Your task to perform on an android device: Open calendar and show me the third week of next month Image 0: 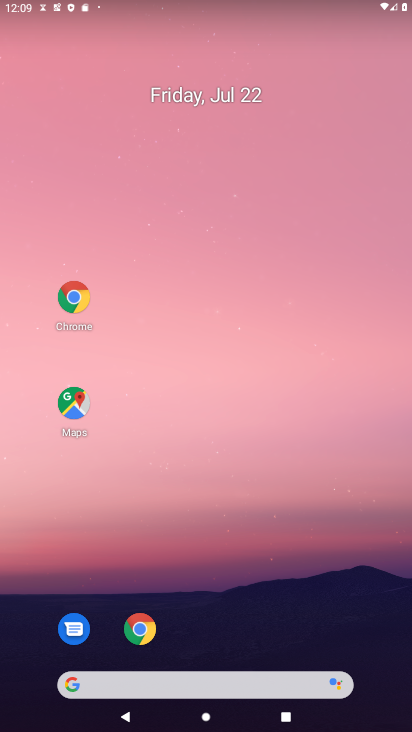
Step 0: drag from (302, 679) to (154, 157)
Your task to perform on an android device: Open calendar and show me the third week of next month Image 1: 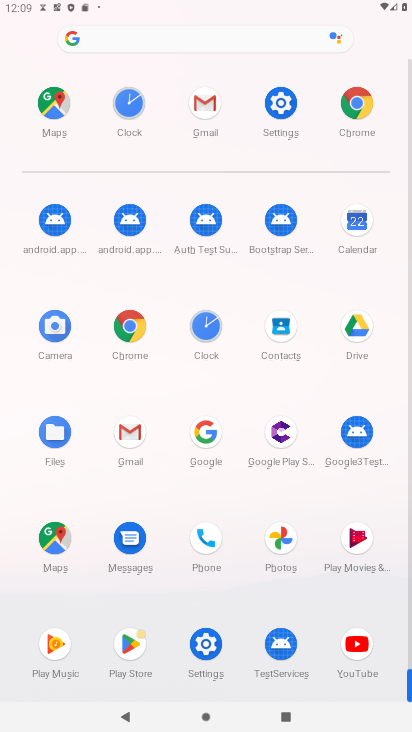
Step 1: click (375, 231)
Your task to perform on an android device: Open calendar and show me the third week of next month Image 2: 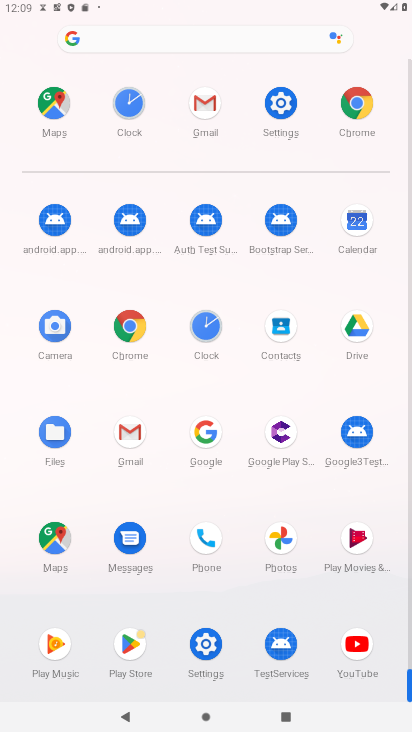
Step 2: click (355, 220)
Your task to perform on an android device: Open calendar and show me the third week of next month Image 3: 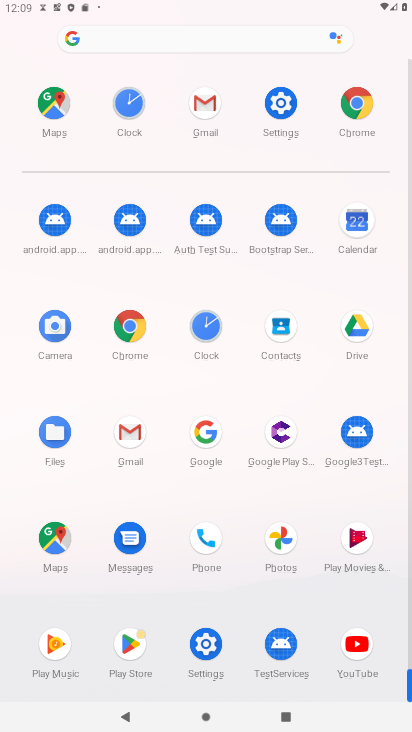
Step 3: click (354, 219)
Your task to perform on an android device: Open calendar and show me the third week of next month Image 4: 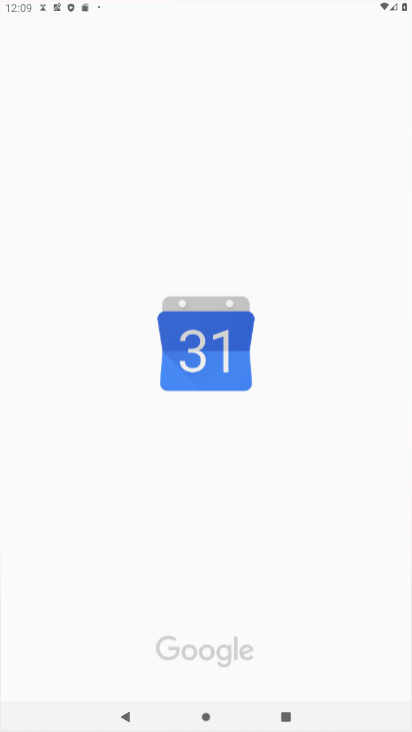
Step 4: click (356, 216)
Your task to perform on an android device: Open calendar and show me the third week of next month Image 5: 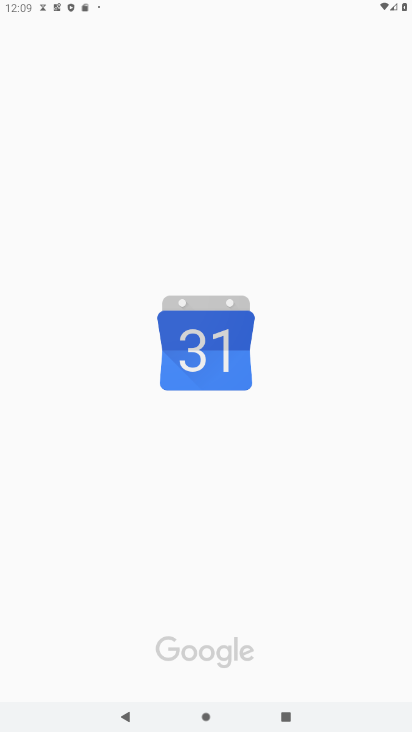
Step 5: click (360, 214)
Your task to perform on an android device: Open calendar and show me the third week of next month Image 6: 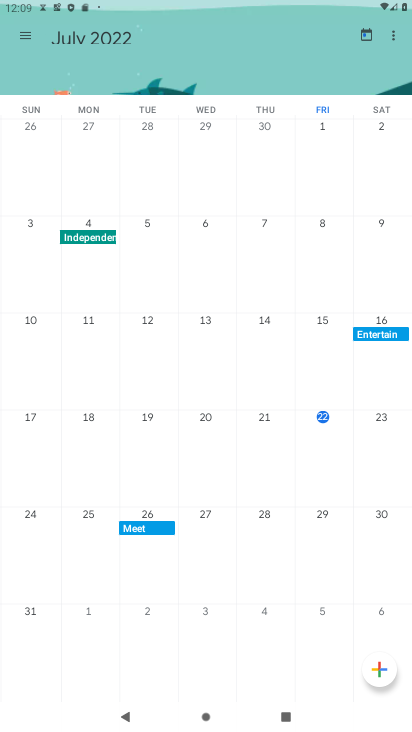
Step 6: click (267, 321)
Your task to perform on an android device: Open calendar and show me the third week of next month Image 7: 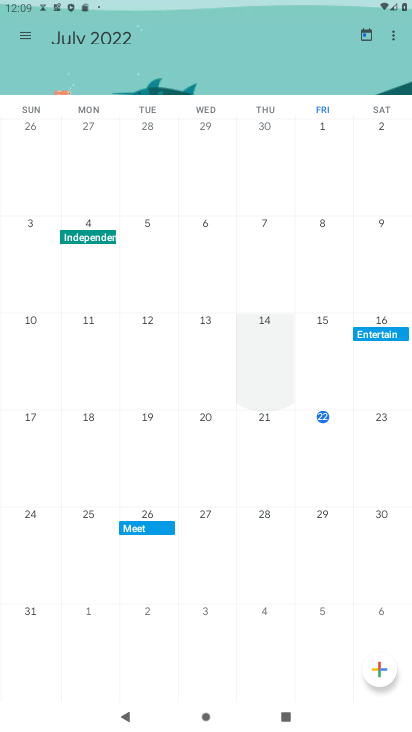
Step 7: drag from (267, 321) to (16, 263)
Your task to perform on an android device: Open calendar and show me the third week of next month Image 8: 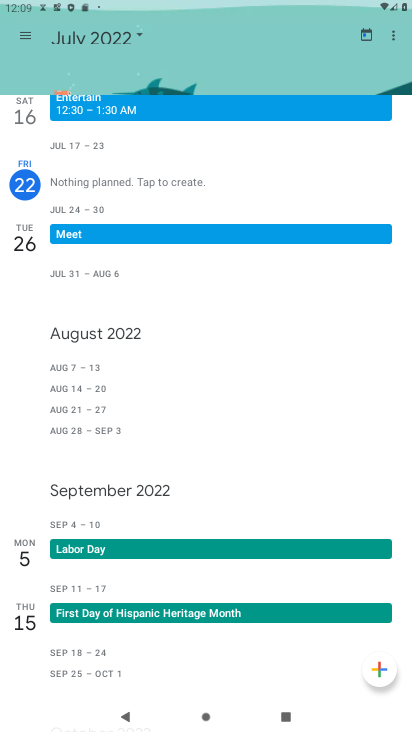
Step 8: drag from (182, 150) to (201, 404)
Your task to perform on an android device: Open calendar and show me the third week of next month Image 9: 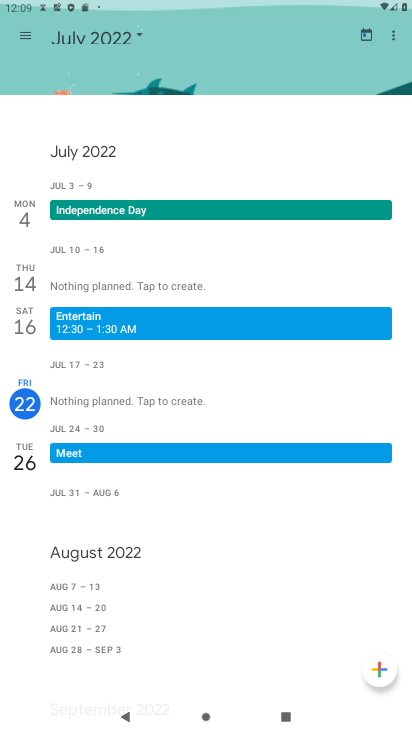
Step 9: drag from (257, 226) to (28, 233)
Your task to perform on an android device: Open calendar and show me the third week of next month Image 10: 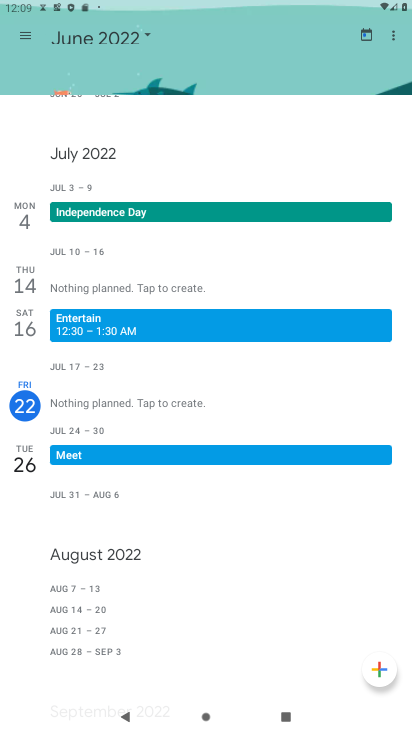
Step 10: drag from (215, 178) to (30, 146)
Your task to perform on an android device: Open calendar and show me the third week of next month Image 11: 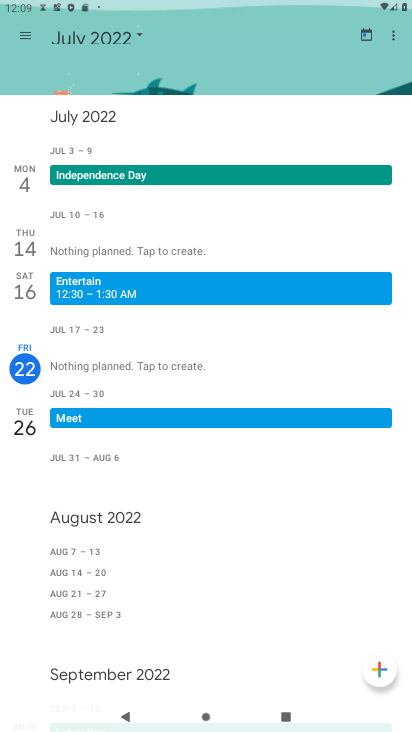
Step 11: click (143, 27)
Your task to perform on an android device: Open calendar and show me the third week of next month Image 12: 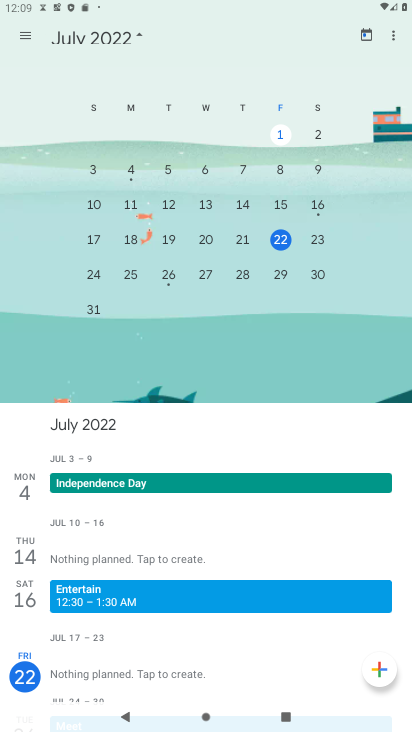
Step 12: drag from (327, 211) to (2, 243)
Your task to perform on an android device: Open calendar and show me the third week of next month Image 13: 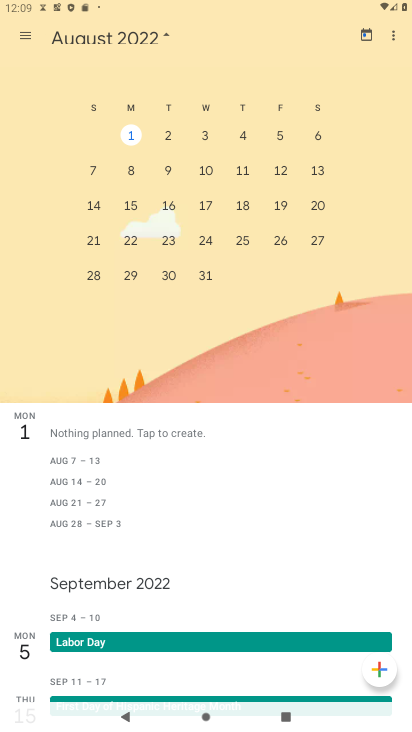
Step 13: click (168, 210)
Your task to perform on an android device: Open calendar and show me the third week of next month Image 14: 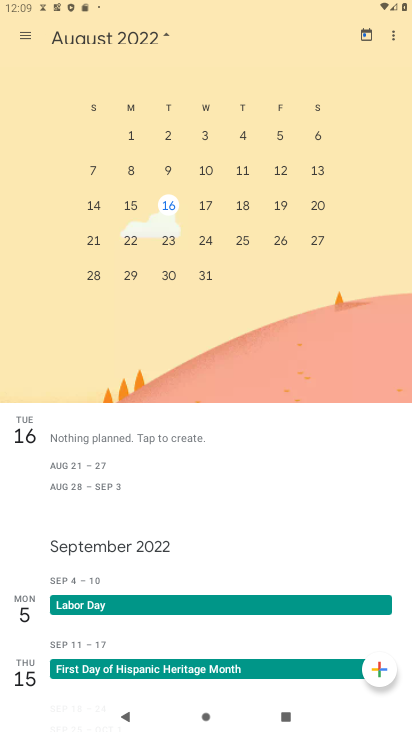
Step 14: click (168, 210)
Your task to perform on an android device: Open calendar and show me the third week of next month Image 15: 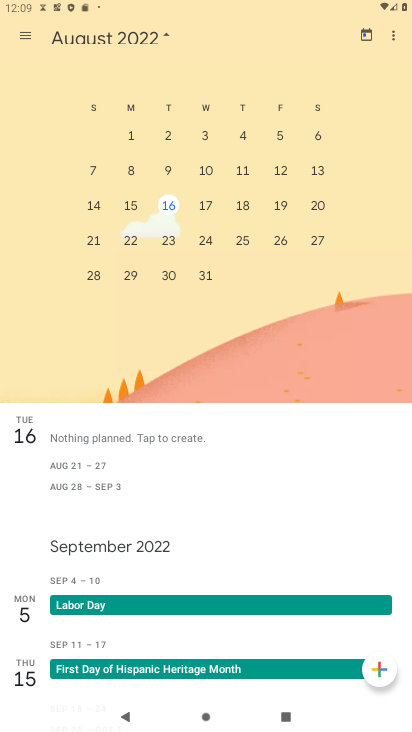
Step 15: click (168, 210)
Your task to perform on an android device: Open calendar and show me the third week of next month Image 16: 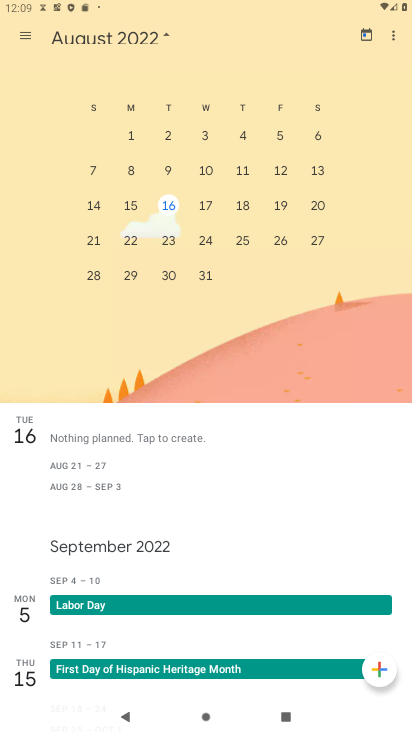
Step 16: click (168, 210)
Your task to perform on an android device: Open calendar and show me the third week of next month Image 17: 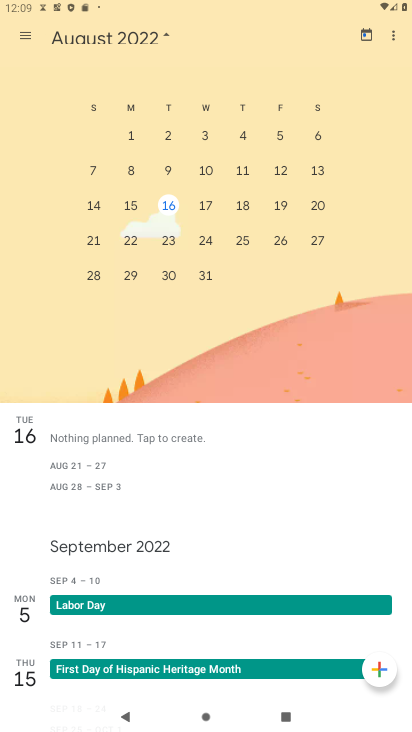
Step 17: task complete